Your task to perform on an android device: turn notification dots on Image 0: 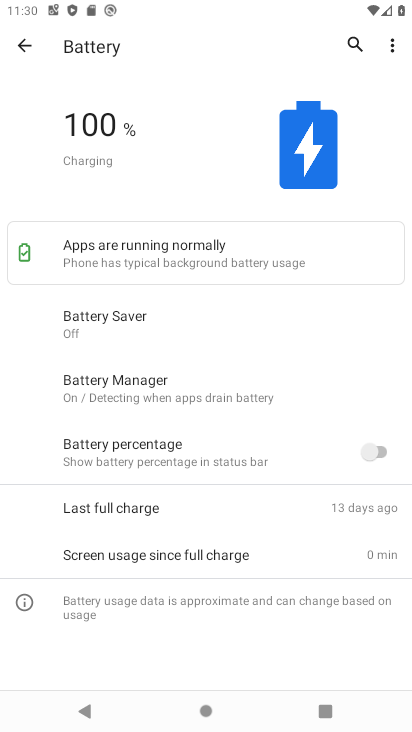
Step 0: press home button
Your task to perform on an android device: turn notification dots on Image 1: 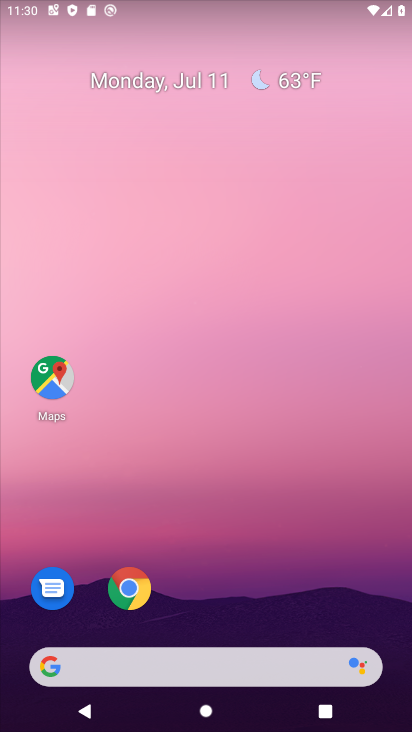
Step 1: drag from (227, 720) to (227, 130)
Your task to perform on an android device: turn notification dots on Image 2: 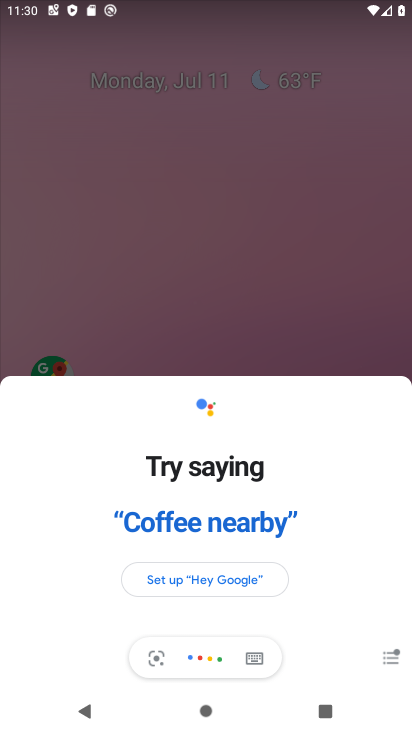
Step 2: press home button
Your task to perform on an android device: turn notification dots on Image 3: 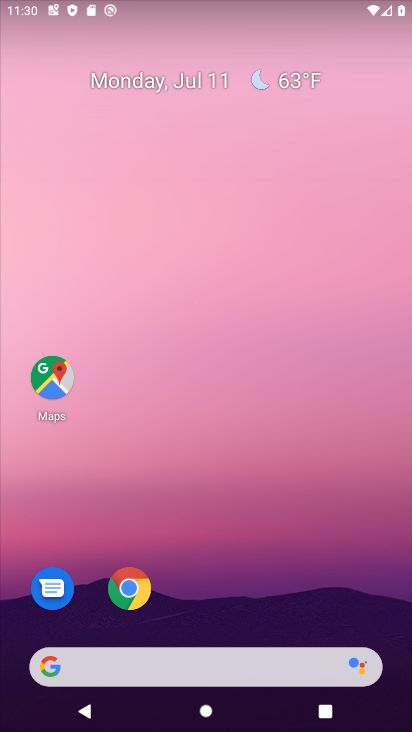
Step 3: drag from (260, 692) to (262, 159)
Your task to perform on an android device: turn notification dots on Image 4: 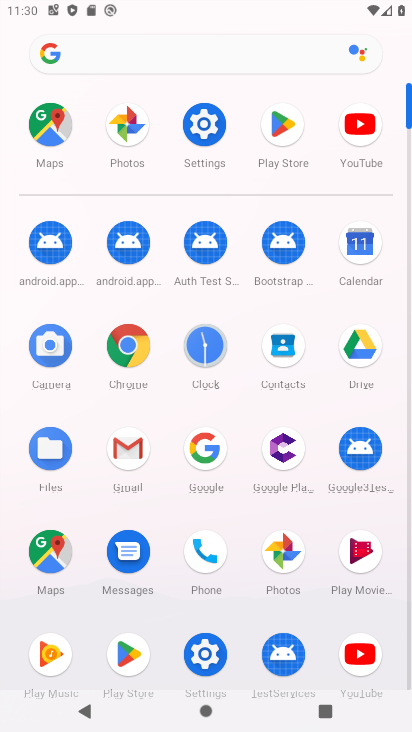
Step 4: click (211, 121)
Your task to perform on an android device: turn notification dots on Image 5: 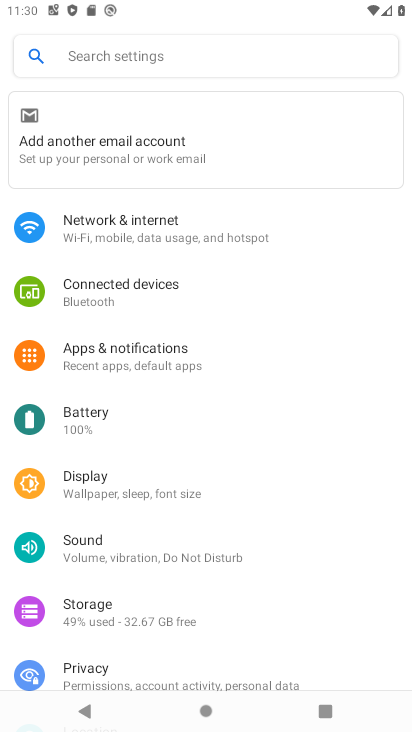
Step 5: click (138, 357)
Your task to perform on an android device: turn notification dots on Image 6: 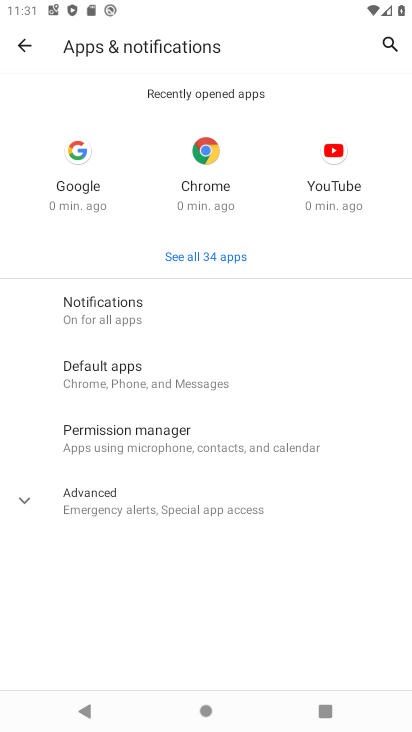
Step 6: click (100, 301)
Your task to perform on an android device: turn notification dots on Image 7: 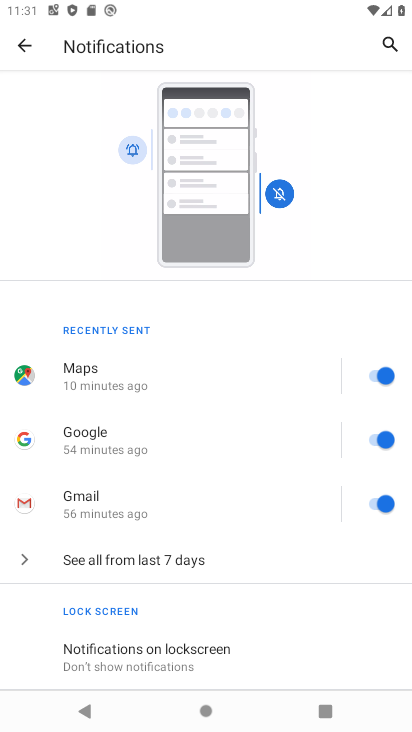
Step 7: drag from (146, 677) to (146, 320)
Your task to perform on an android device: turn notification dots on Image 8: 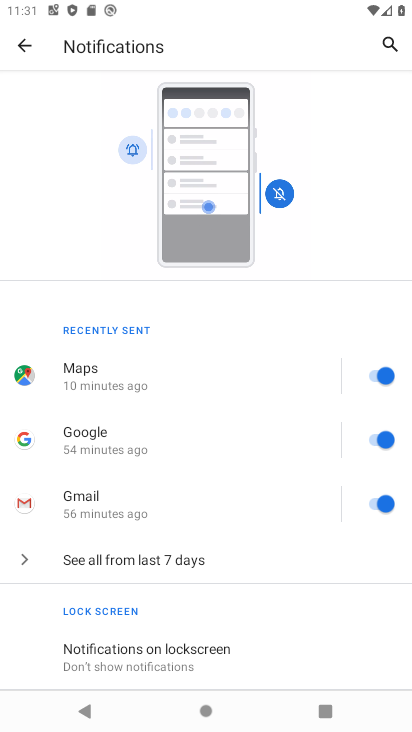
Step 8: drag from (241, 650) to (228, 326)
Your task to perform on an android device: turn notification dots on Image 9: 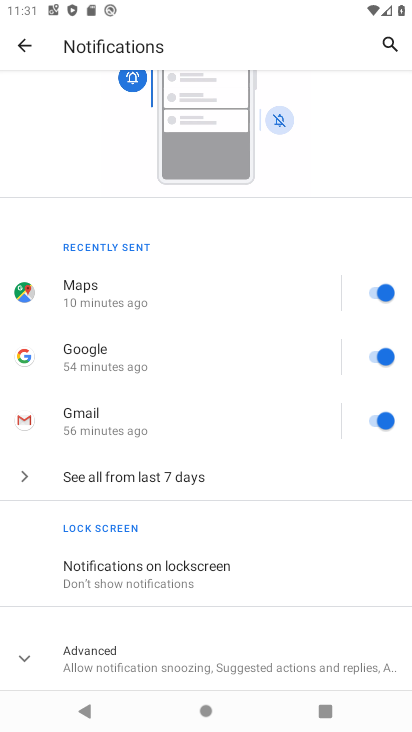
Step 9: click (210, 670)
Your task to perform on an android device: turn notification dots on Image 10: 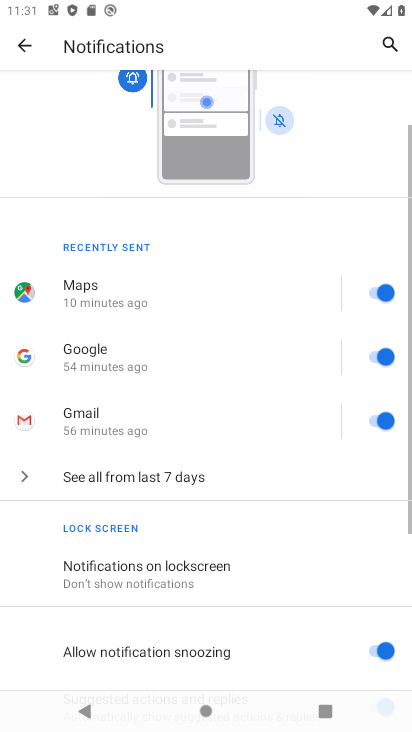
Step 10: drag from (302, 674) to (288, 353)
Your task to perform on an android device: turn notification dots on Image 11: 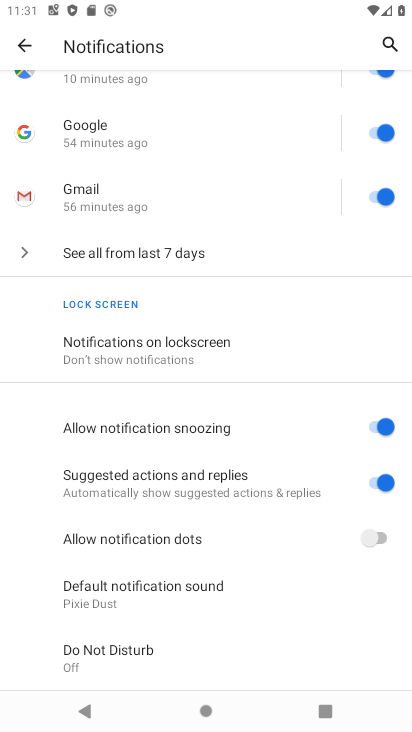
Step 11: click (380, 533)
Your task to perform on an android device: turn notification dots on Image 12: 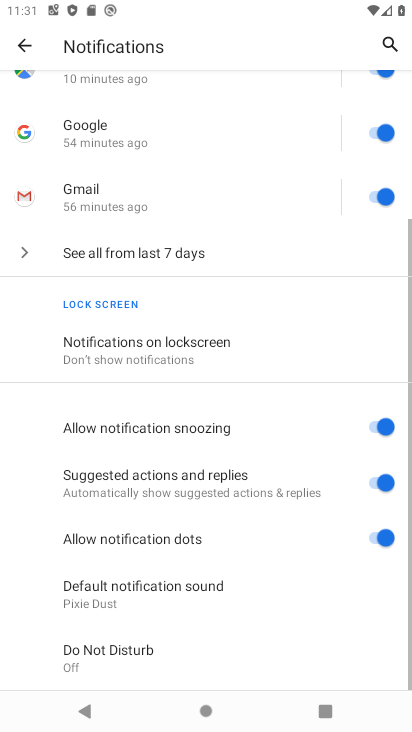
Step 12: task complete